Your task to perform on an android device: Check the news Image 0: 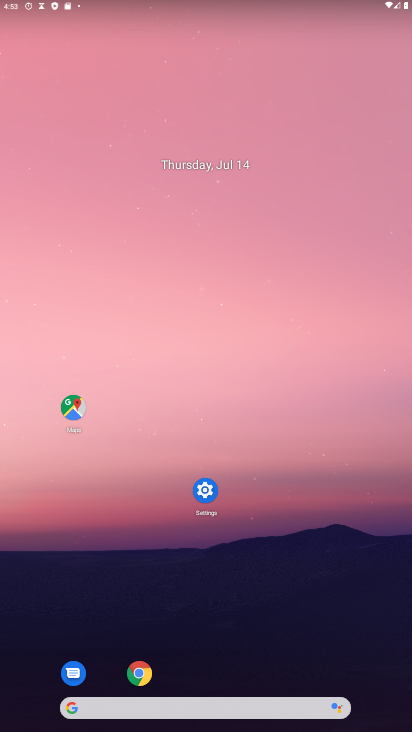
Step 0: drag from (261, 641) to (211, 9)
Your task to perform on an android device: Check the news Image 1: 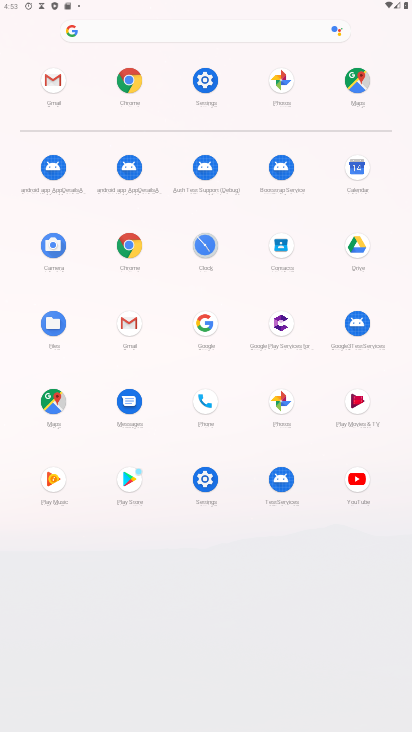
Step 1: click (130, 81)
Your task to perform on an android device: Check the news Image 2: 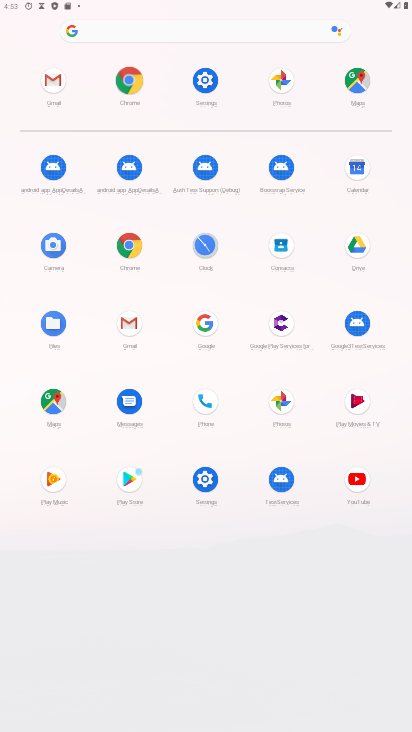
Step 2: click (135, 79)
Your task to perform on an android device: Check the news Image 3: 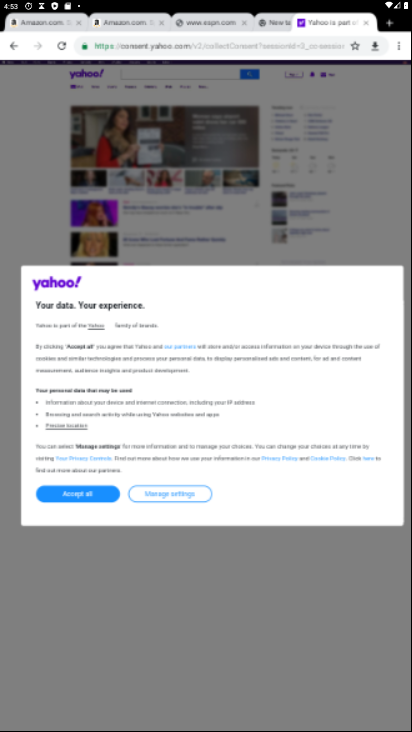
Step 3: click (135, 79)
Your task to perform on an android device: Check the news Image 4: 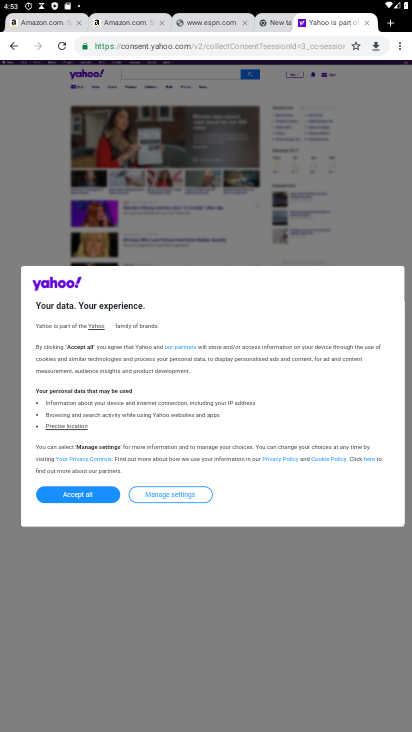
Step 4: task complete